Your task to perform on an android device: Go to internet settings Image 0: 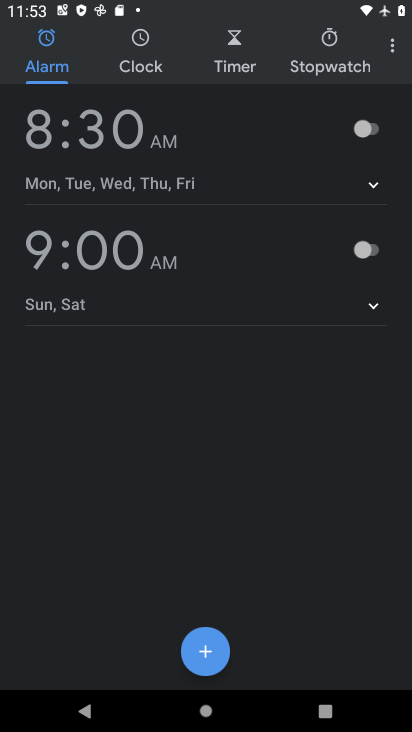
Step 0: press home button
Your task to perform on an android device: Go to internet settings Image 1: 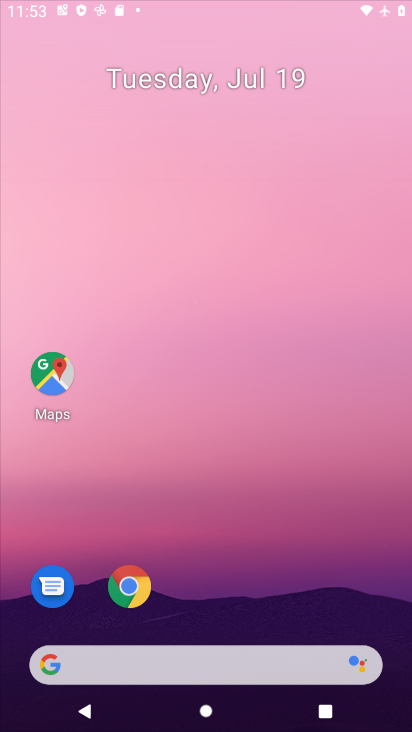
Step 1: drag from (390, 661) to (200, 93)
Your task to perform on an android device: Go to internet settings Image 2: 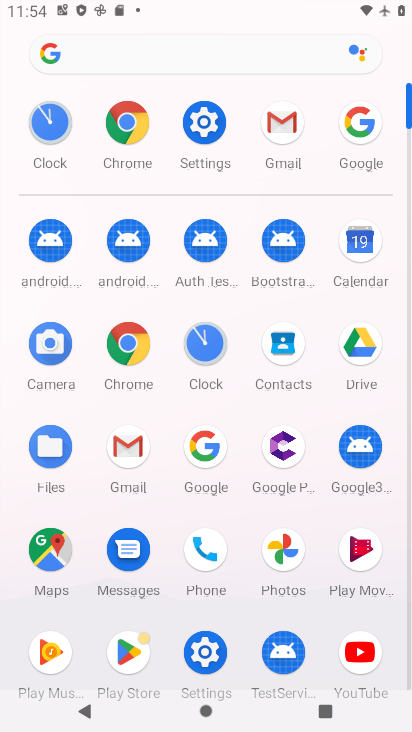
Step 2: click (201, 640)
Your task to perform on an android device: Go to internet settings Image 3: 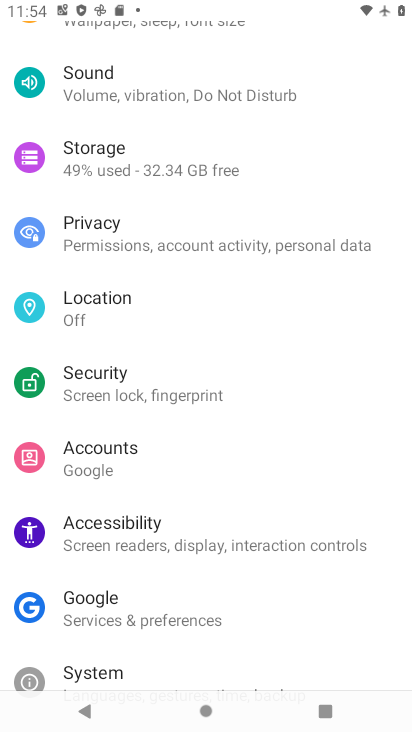
Step 3: drag from (152, 151) to (221, 639)
Your task to perform on an android device: Go to internet settings Image 4: 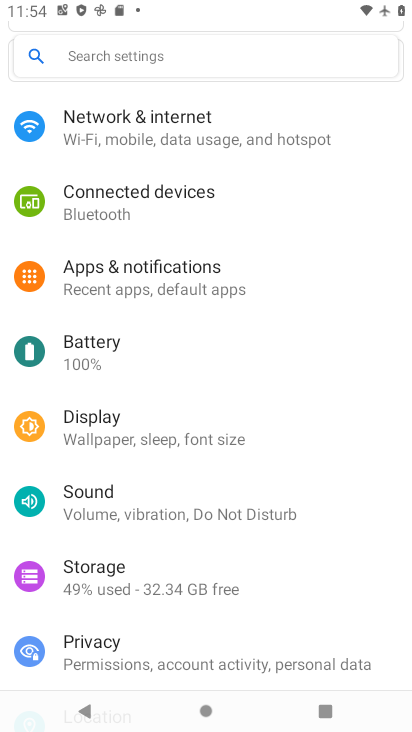
Step 4: click (156, 153)
Your task to perform on an android device: Go to internet settings Image 5: 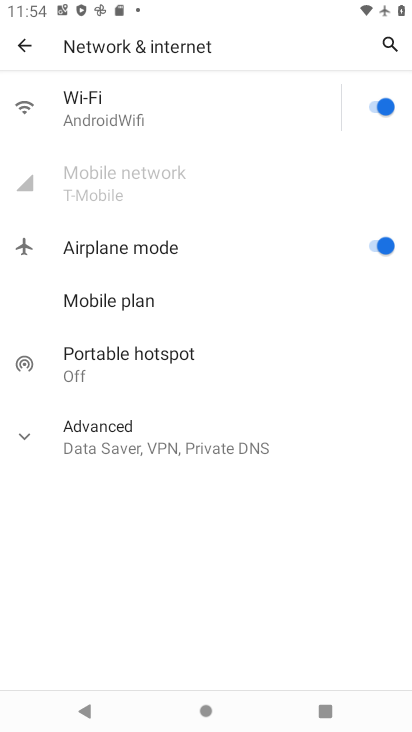
Step 5: task complete